Your task to perform on an android device: Go to sound settings Image 0: 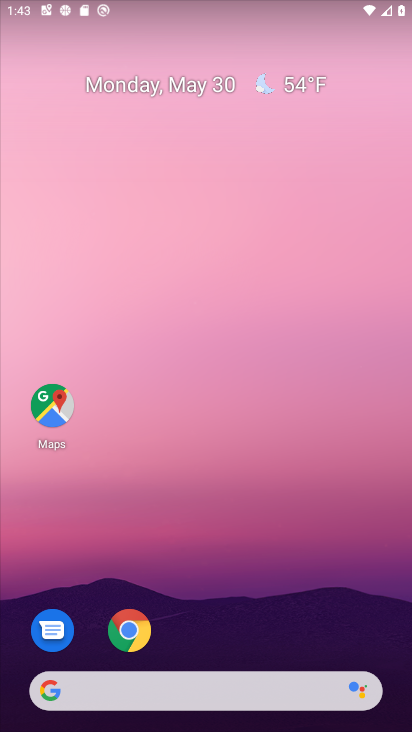
Step 0: press home button
Your task to perform on an android device: Go to sound settings Image 1: 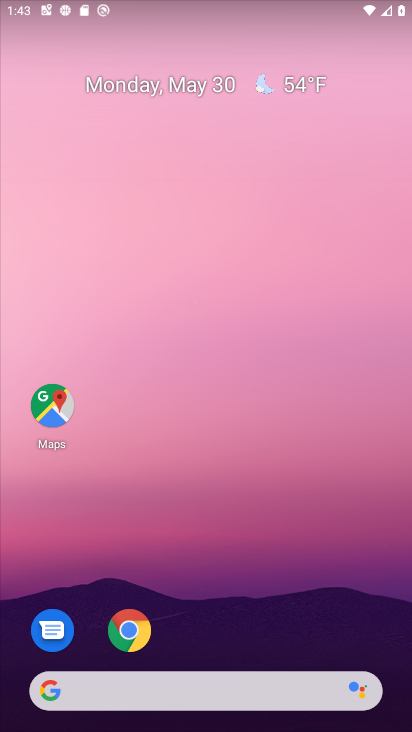
Step 1: drag from (176, 690) to (362, 72)
Your task to perform on an android device: Go to sound settings Image 2: 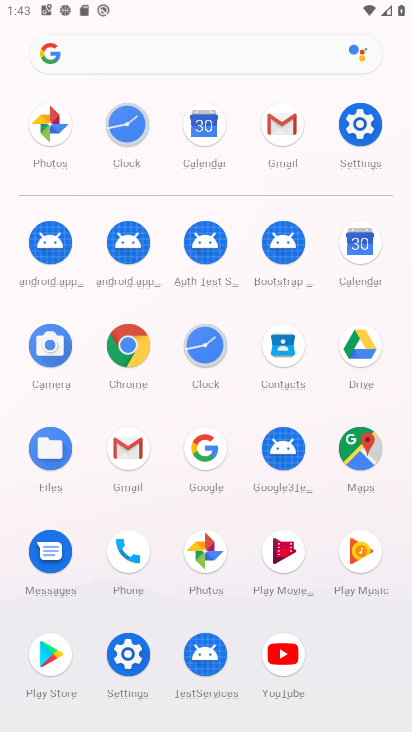
Step 2: click (361, 125)
Your task to perform on an android device: Go to sound settings Image 3: 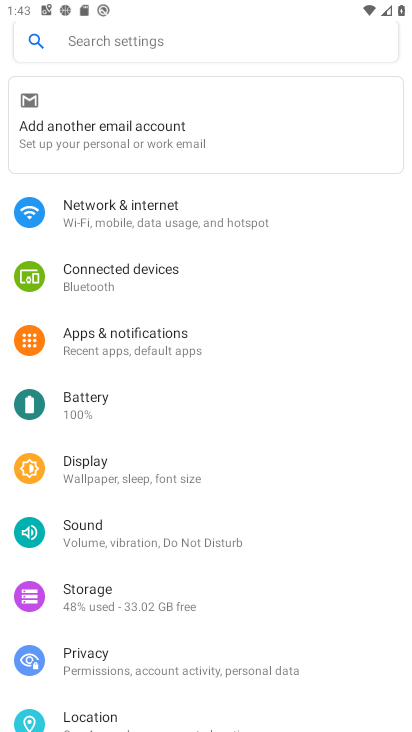
Step 3: click (124, 533)
Your task to perform on an android device: Go to sound settings Image 4: 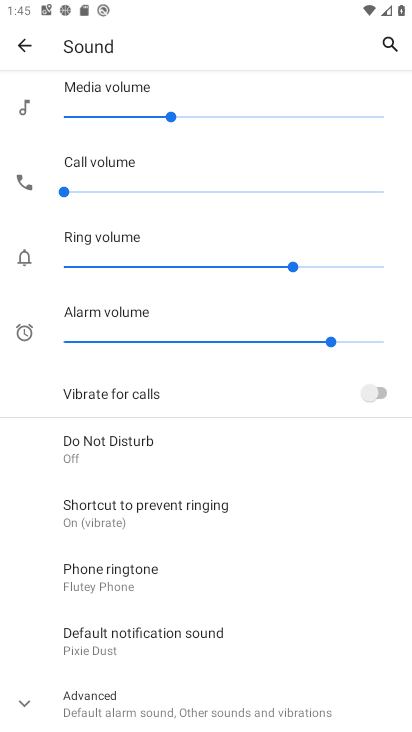
Step 4: task complete